Your task to perform on an android device: toggle location history Image 0: 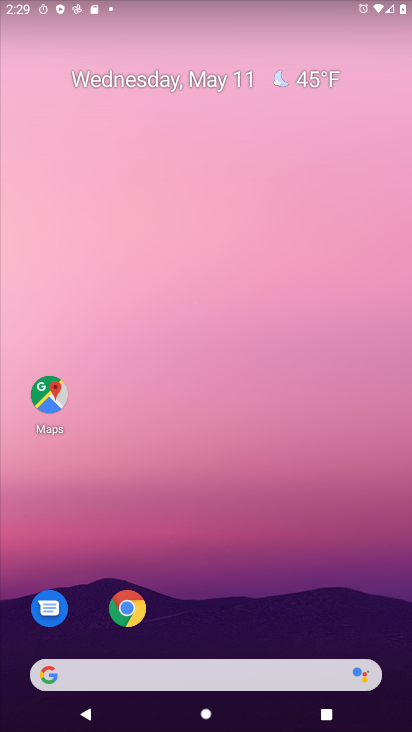
Step 0: drag from (199, 379) to (219, 130)
Your task to perform on an android device: toggle location history Image 1: 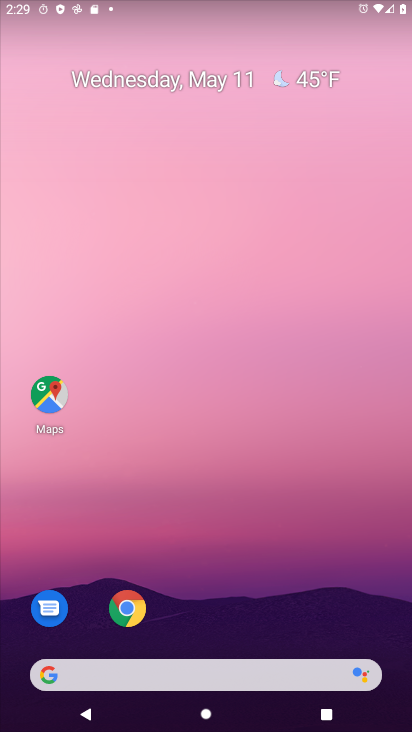
Step 1: drag from (221, 610) to (276, 91)
Your task to perform on an android device: toggle location history Image 2: 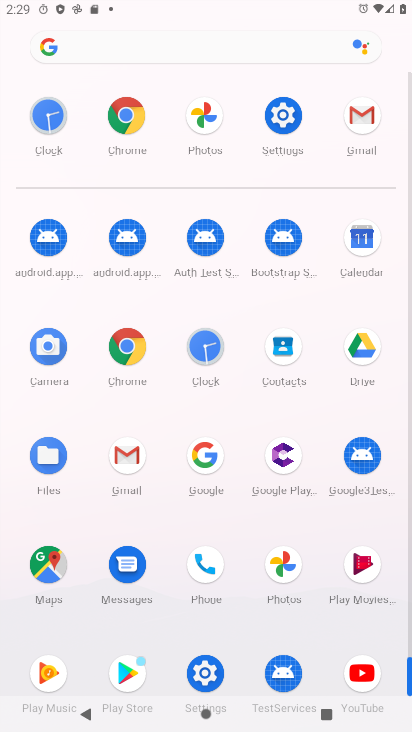
Step 2: click (282, 110)
Your task to perform on an android device: toggle location history Image 3: 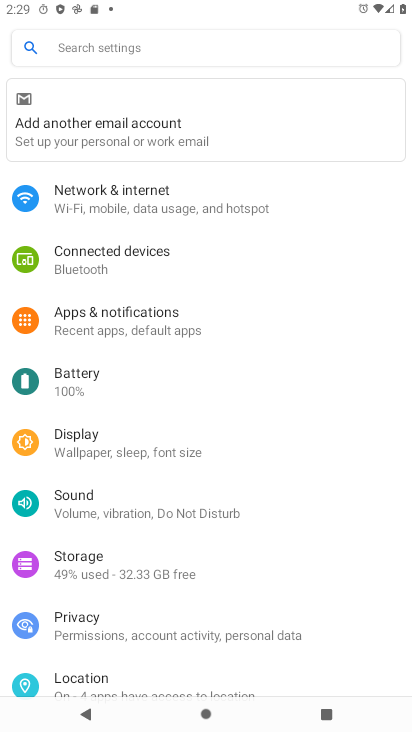
Step 3: drag from (204, 585) to (217, 311)
Your task to perform on an android device: toggle location history Image 4: 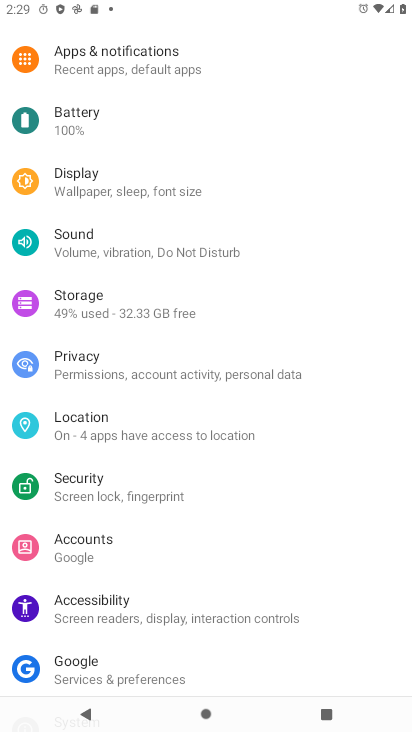
Step 4: click (103, 421)
Your task to perform on an android device: toggle location history Image 5: 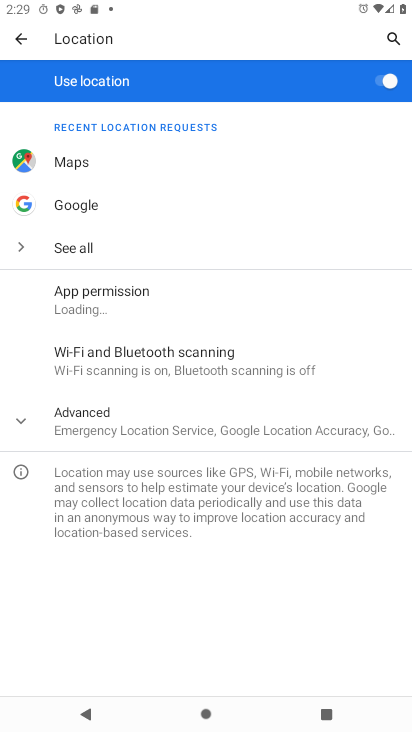
Step 5: click (113, 417)
Your task to perform on an android device: toggle location history Image 6: 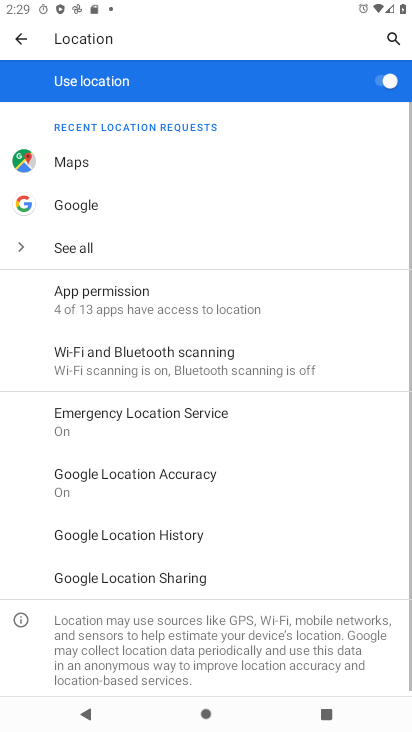
Step 6: drag from (217, 514) to (223, 372)
Your task to perform on an android device: toggle location history Image 7: 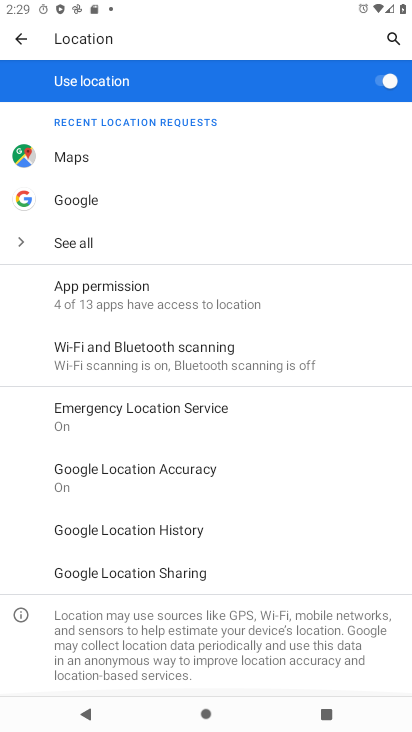
Step 7: click (164, 518)
Your task to perform on an android device: toggle location history Image 8: 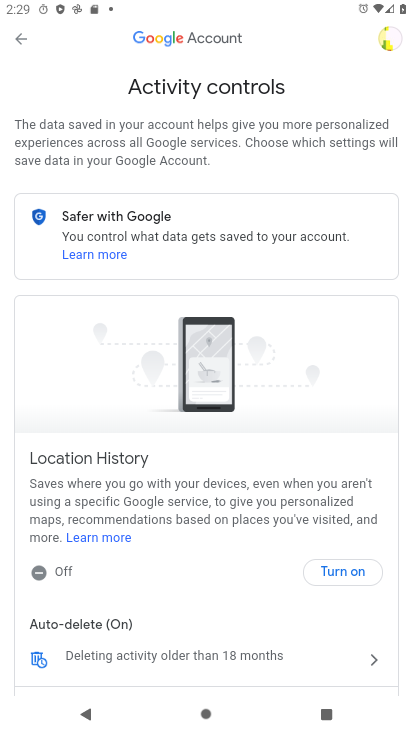
Step 8: drag from (247, 571) to (287, 161)
Your task to perform on an android device: toggle location history Image 9: 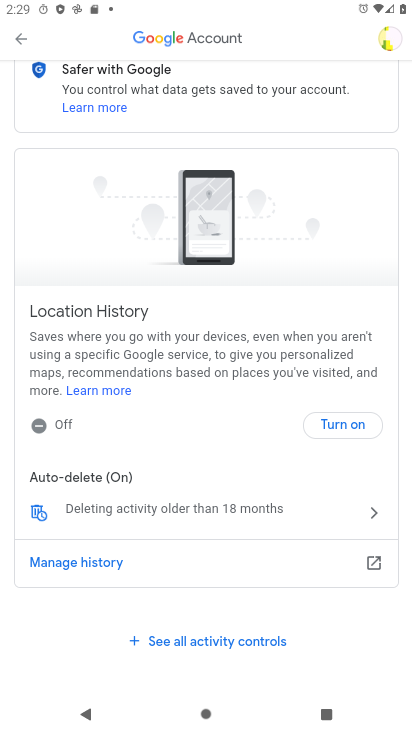
Step 9: click (336, 425)
Your task to perform on an android device: toggle location history Image 10: 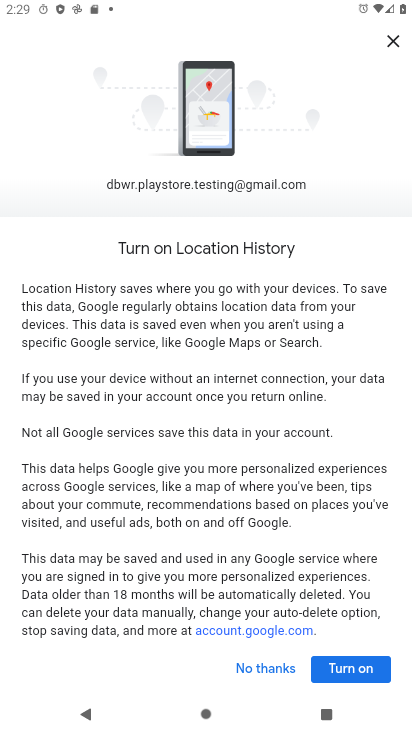
Step 10: click (345, 664)
Your task to perform on an android device: toggle location history Image 11: 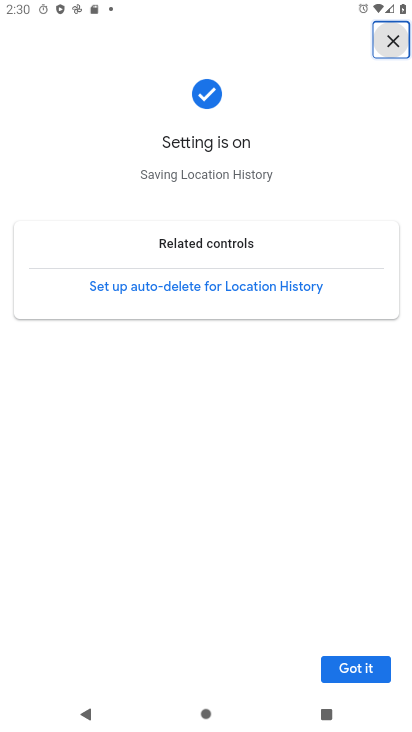
Step 11: click (351, 671)
Your task to perform on an android device: toggle location history Image 12: 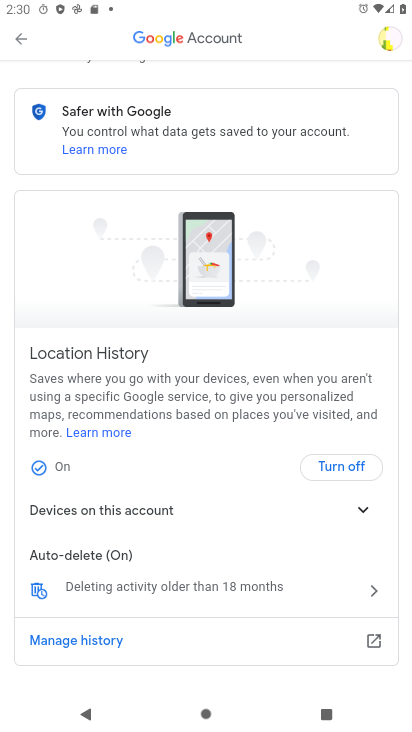
Step 12: task complete